Your task to perform on an android device: Open sound settings Image 0: 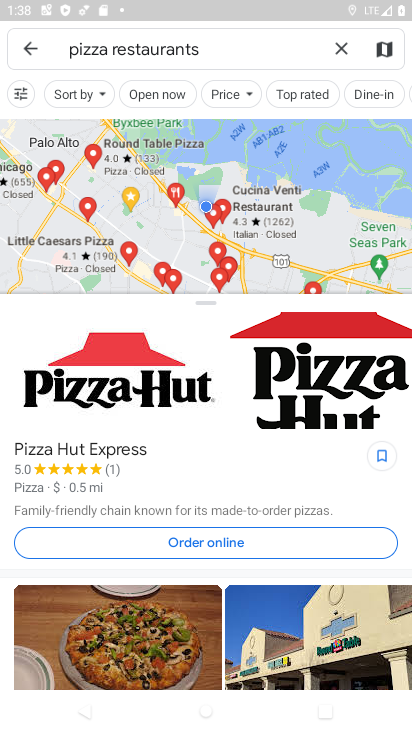
Step 0: press home button
Your task to perform on an android device: Open sound settings Image 1: 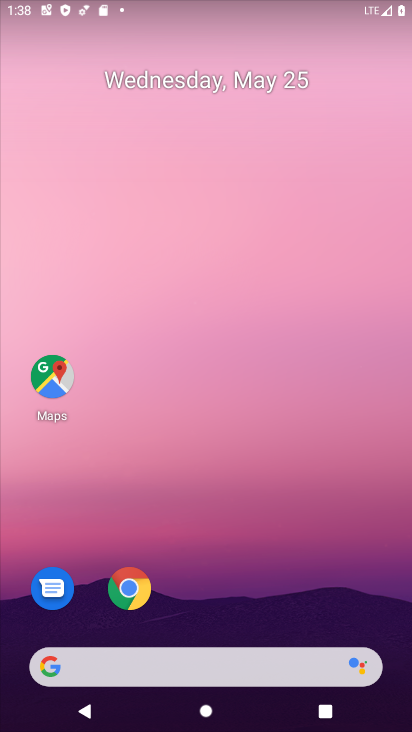
Step 1: drag from (233, 613) to (347, 19)
Your task to perform on an android device: Open sound settings Image 2: 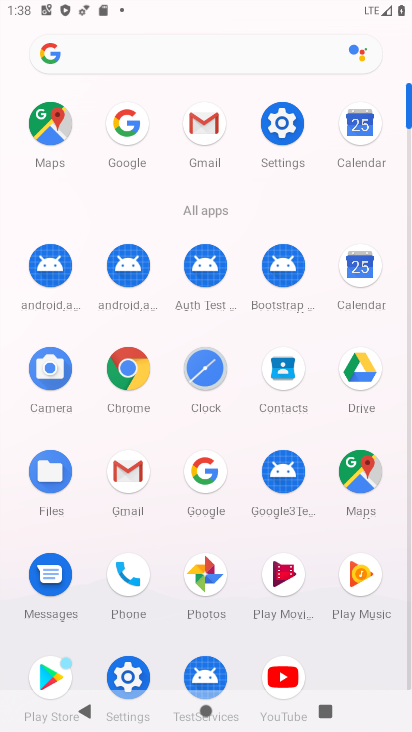
Step 2: click (278, 129)
Your task to perform on an android device: Open sound settings Image 3: 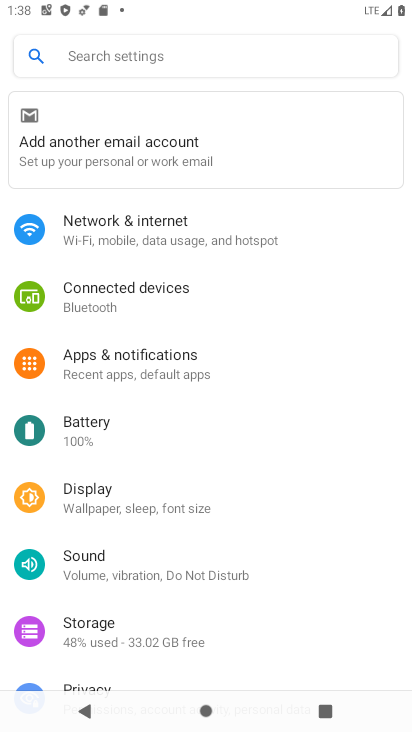
Step 3: click (78, 569)
Your task to perform on an android device: Open sound settings Image 4: 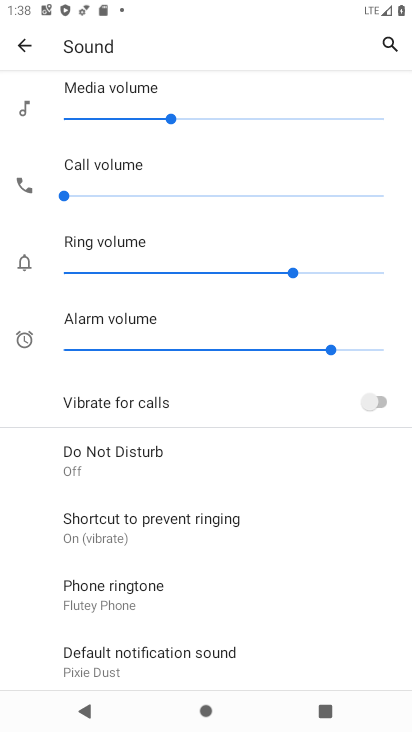
Step 4: task complete